Your task to perform on an android device: Clear the shopping cart on walmart. Image 0: 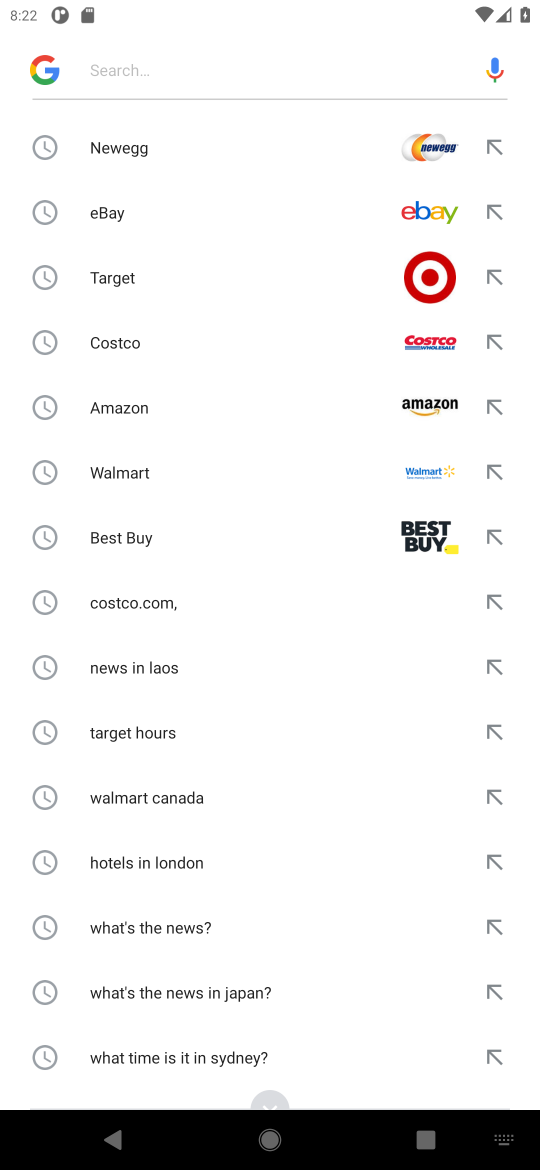
Step 0: type "walmart.com"
Your task to perform on an android device: Clear the shopping cart on walmart. Image 1: 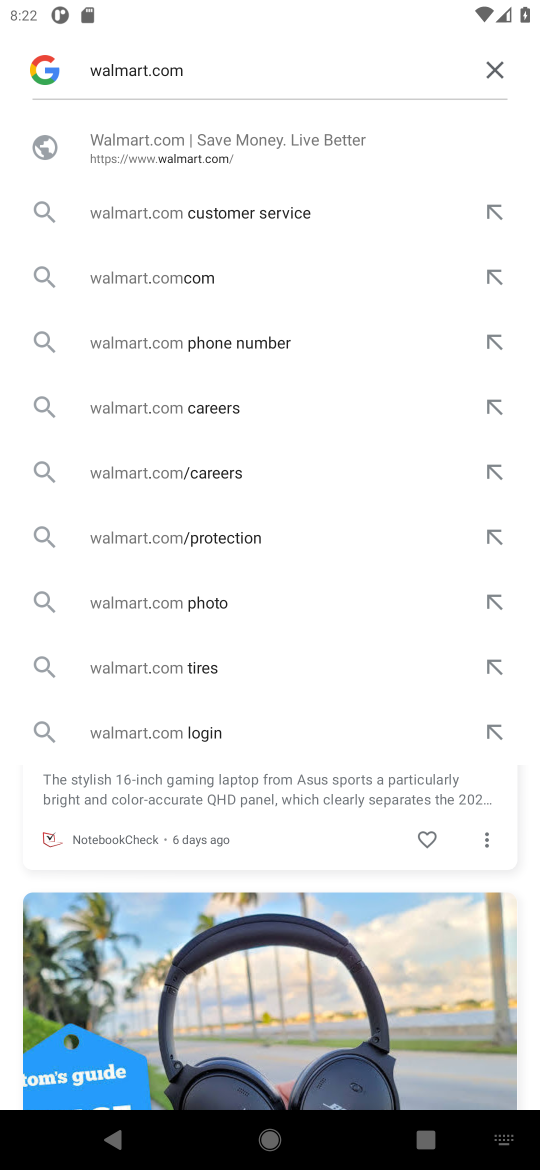
Step 1: click (120, 162)
Your task to perform on an android device: Clear the shopping cart on walmart. Image 2: 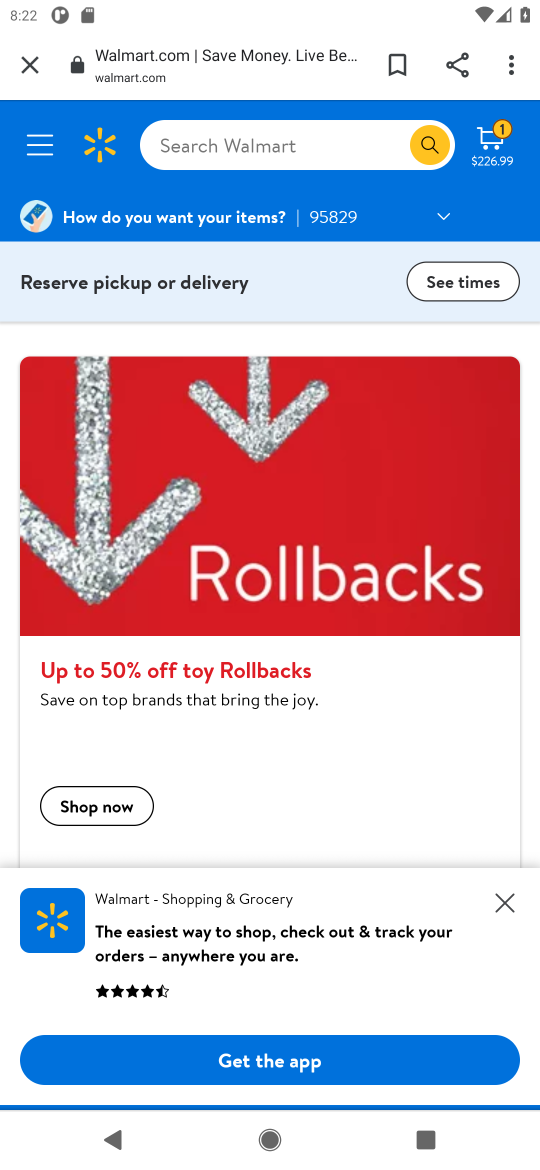
Step 2: click (495, 142)
Your task to perform on an android device: Clear the shopping cart on walmart. Image 3: 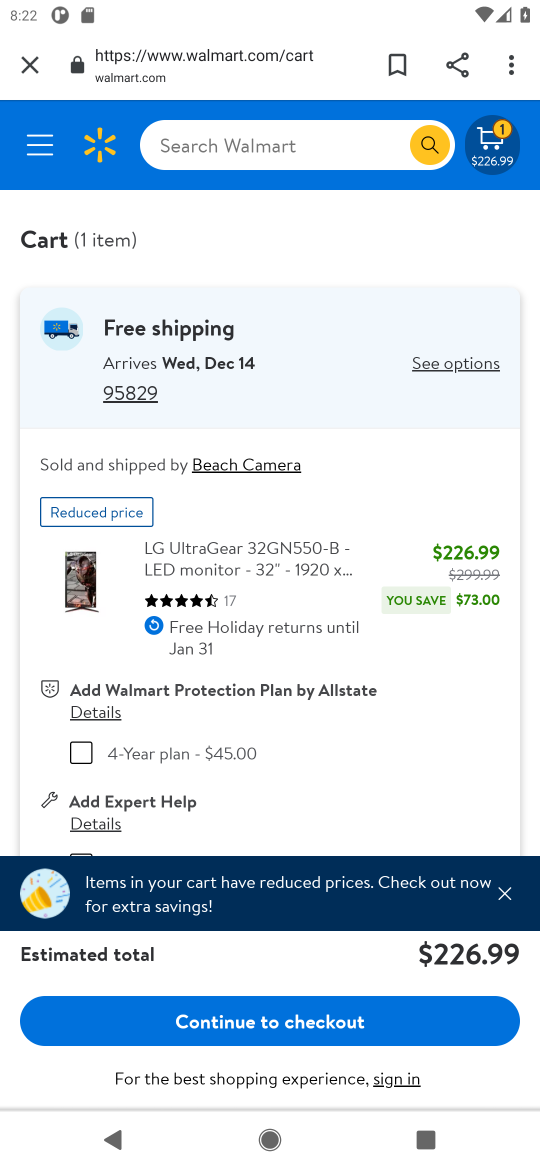
Step 3: click (503, 894)
Your task to perform on an android device: Clear the shopping cart on walmart. Image 4: 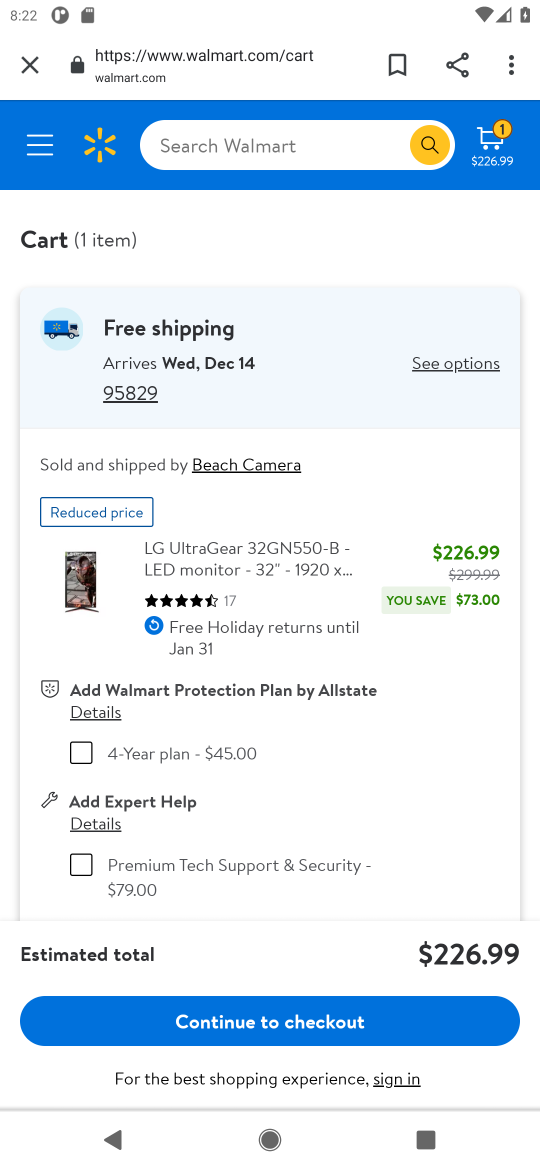
Step 4: drag from (239, 860) to (283, 455)
Your task to perform on an android device: Clear the shopping cart on walmart. Image 5: 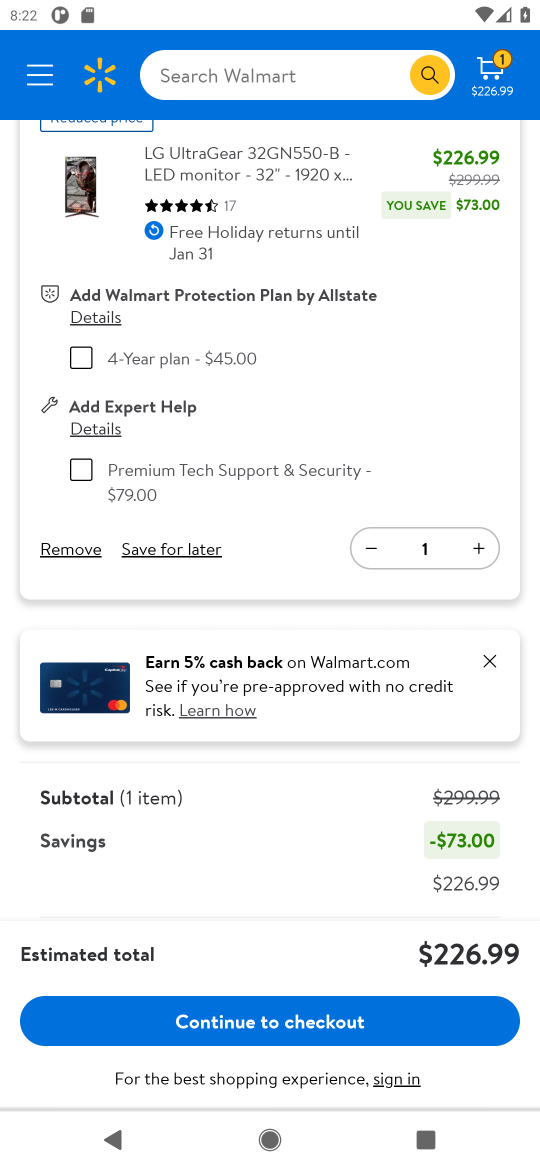
Step 5: click (63, 552)
Your task to perform on an android device: Clear the shopping cart on walmart. Image 6: 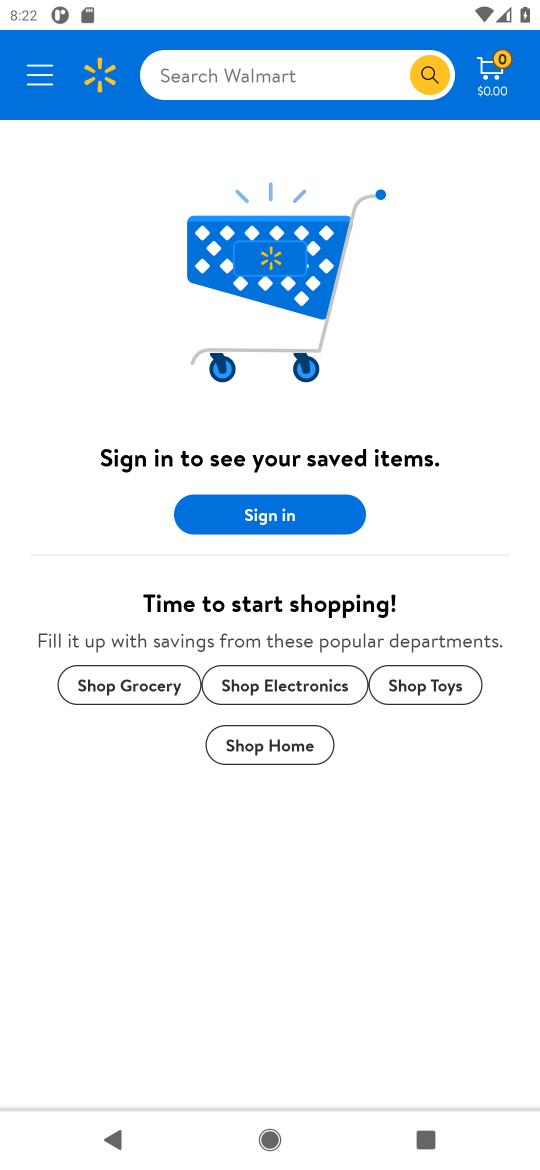
Step 6: task complete